Your task to perform on an android device: set the stopwatch Image 0: 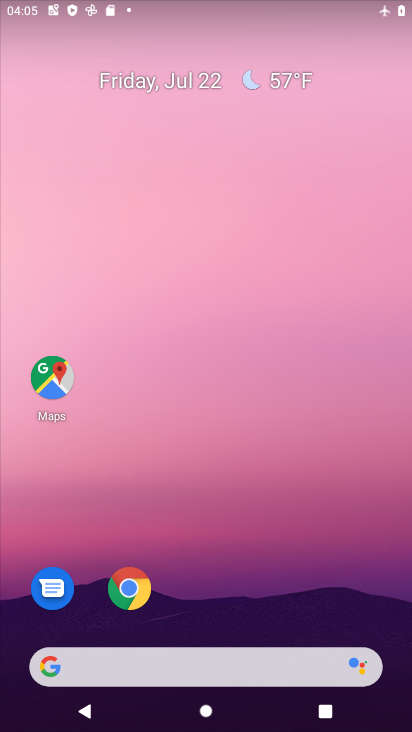
Step 0: drag from (207, 643) to (208, 8)
Your task to perform on an android device: set the stopwatch Image 1: 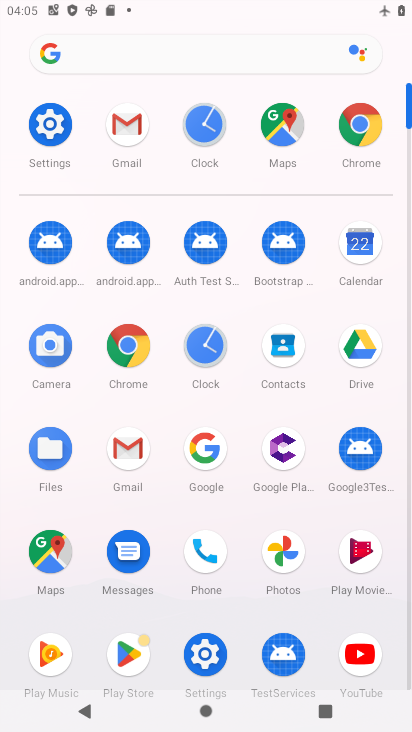
Step 1: click (187, 350)
Your task to perform on an android device: set the stopwatch Image 2: 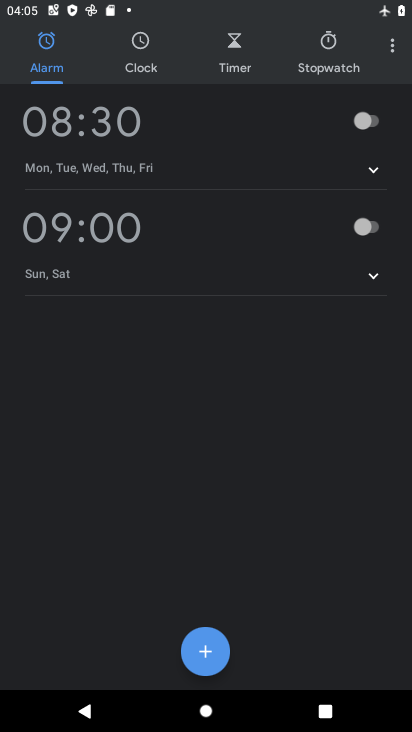
Step 2: click (330, 64)
Your task to perform on an android device: set the stopwatch Image 3: 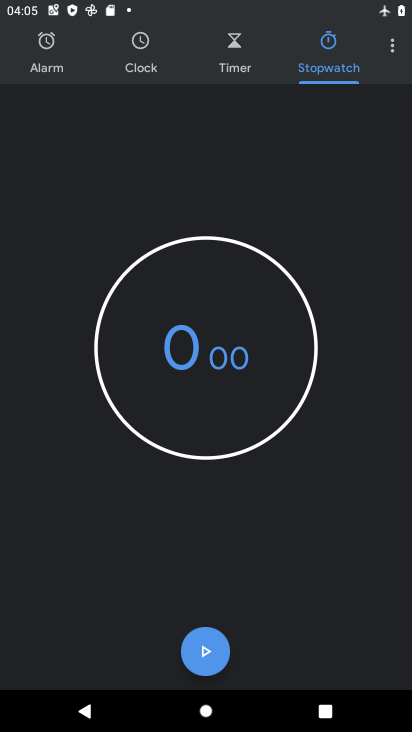
Step 3: task complete